Your task to perform on an android device: change alarm snooze length Image 0: 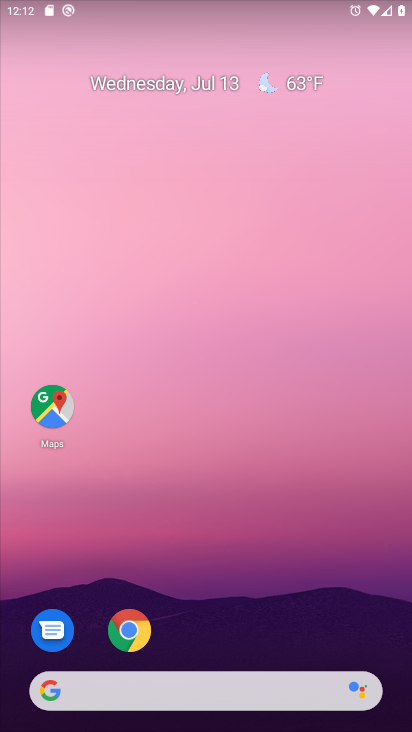
Step 0: drag from (239, 684) to (242, 107)
Your task to perform on an android device: change alarm snooze length Image 1: 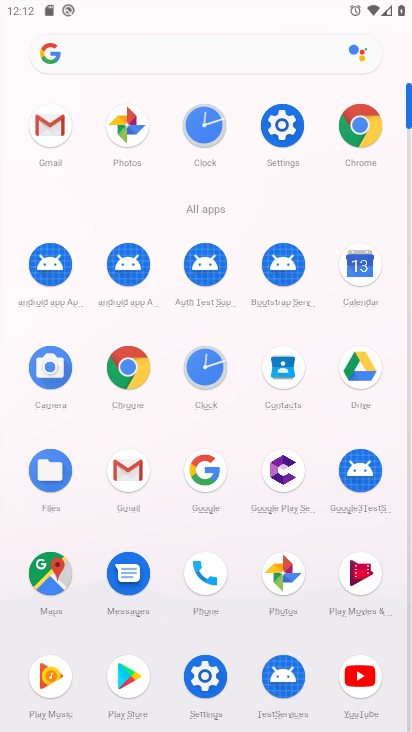
Step 1: click (201, 386)
Your task to perform on an android device: change alarm snooze length Image 2: 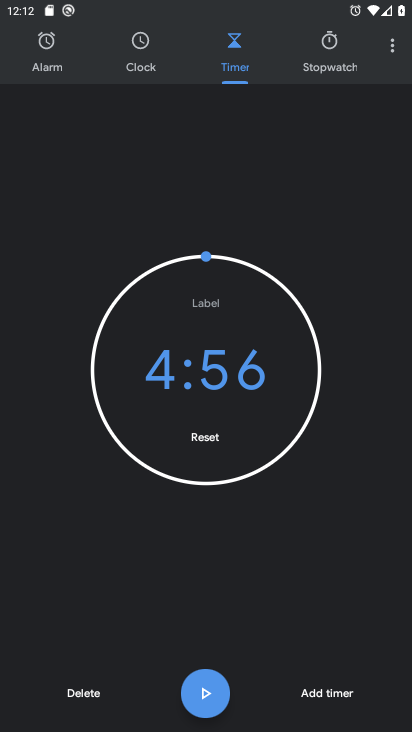
Step 2: click (390, 50)
Your task to perform on an android device: change alarm snooze length Image 3: 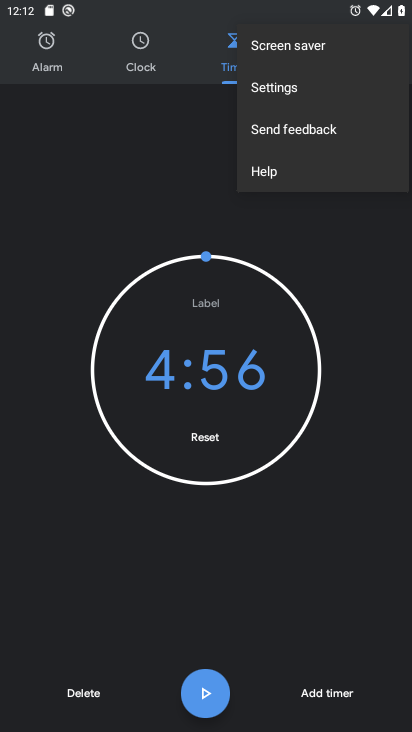
Step 3: click (277, 92)
Your task to perform on an android device: change alarm snooze length Image 4: 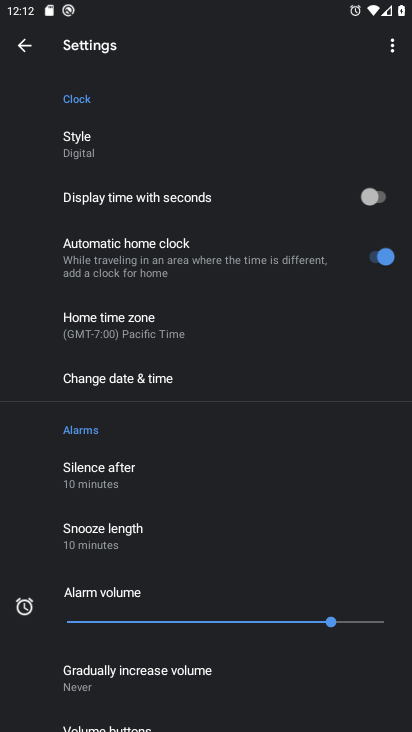
Step 4: click (133, 535)
Your task to perform on an android device: change alarm snooze length Image 5: 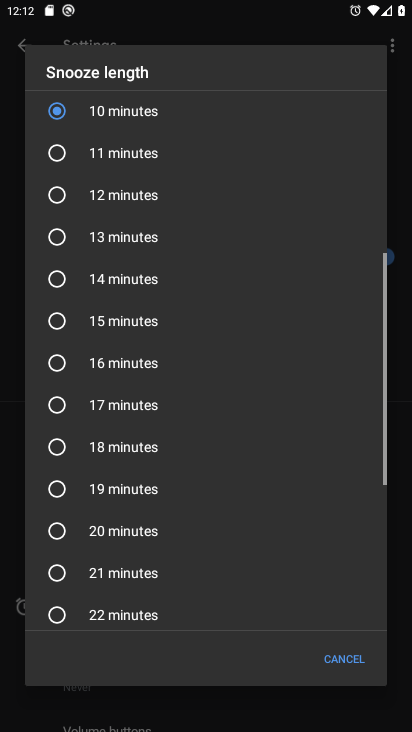
Step 5: click (134, 614)
Your task to perform on an android device: change alarm snooze length Image 6: 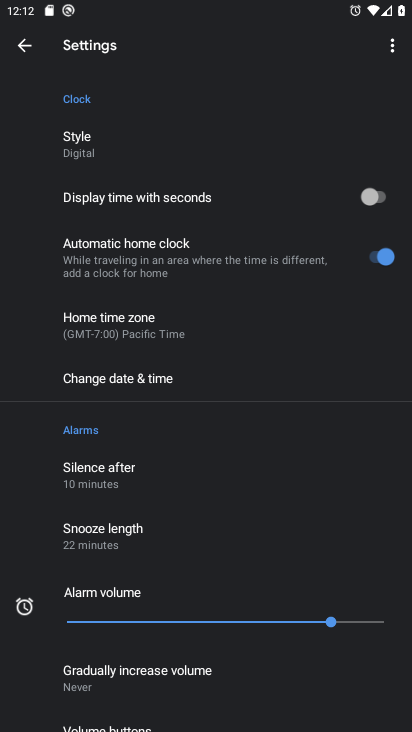
Step 6: task complete